Your task to perform on an android device: Open the Play Movies app and select the watchlist tab. Image 0: 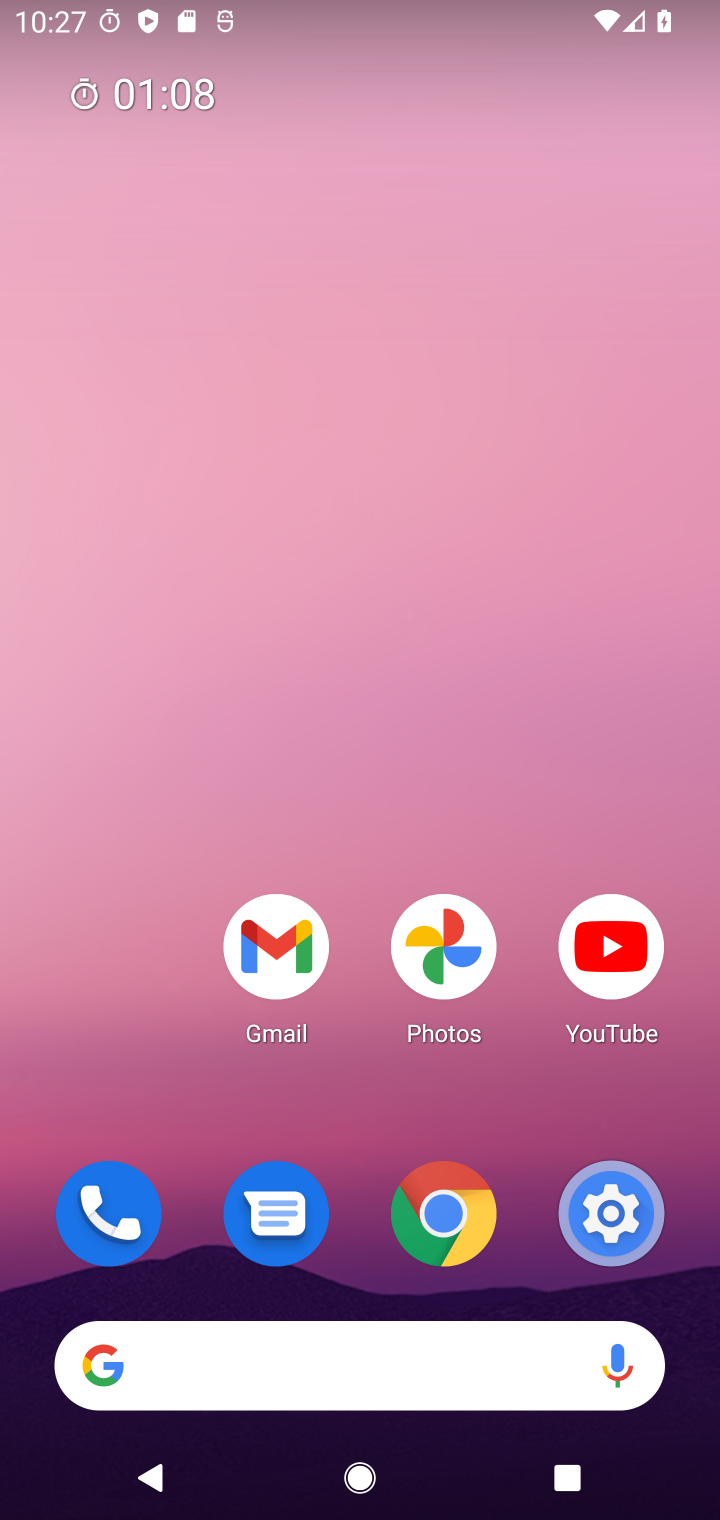
Step 0: drag from (392, 1069) to (417, 173)
Your task to perform on an android device: Open the Play Movies app and select the watchlist tab. Image 1: 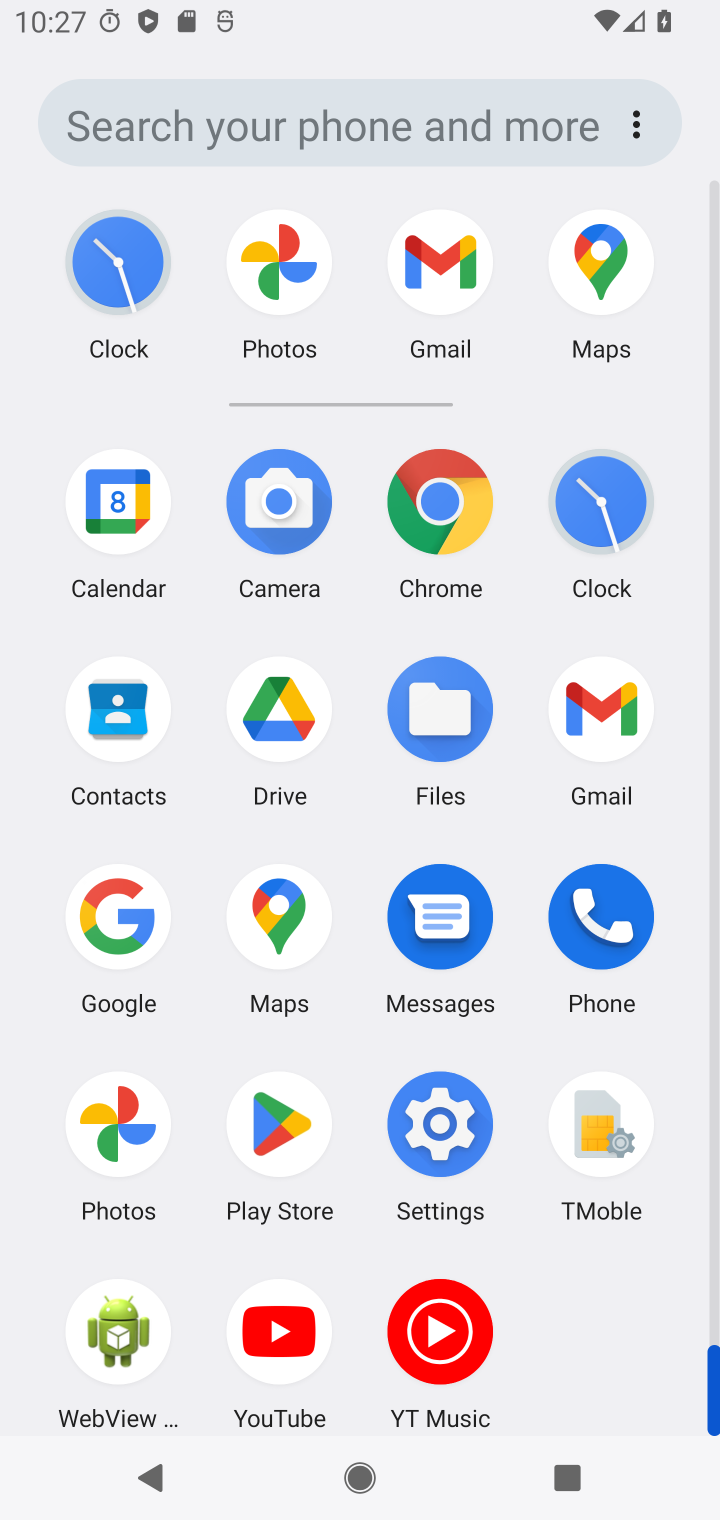
Step 1: task complete